Your task to perform on an android device: allow cookies in the chrome app Image 0: 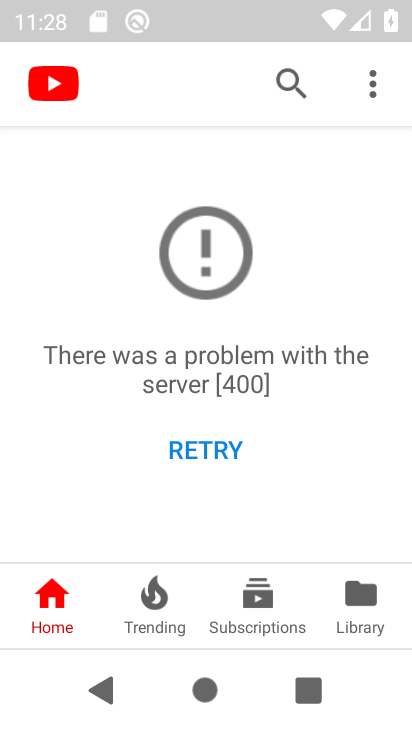
Step 0: press home button
Your task to perform on an android device: allow cookies in the chrome app Image 1: 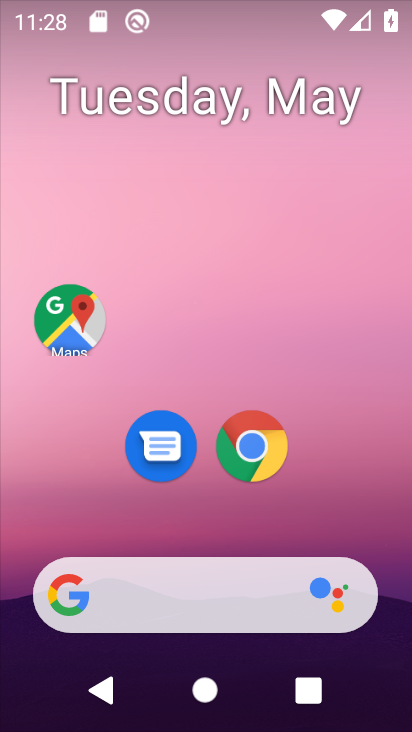
Step 1: drag from (374, 484) to (212, 5)
Your task to perform on an android device: allow cookies in the chrome app Image 2: 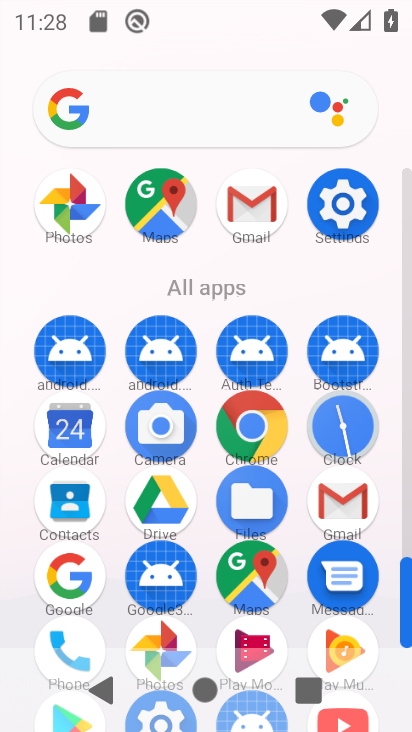
Step 2: click (233, 436)
Your task to perform on an android device: allow cookies in the chrome app Image 3: 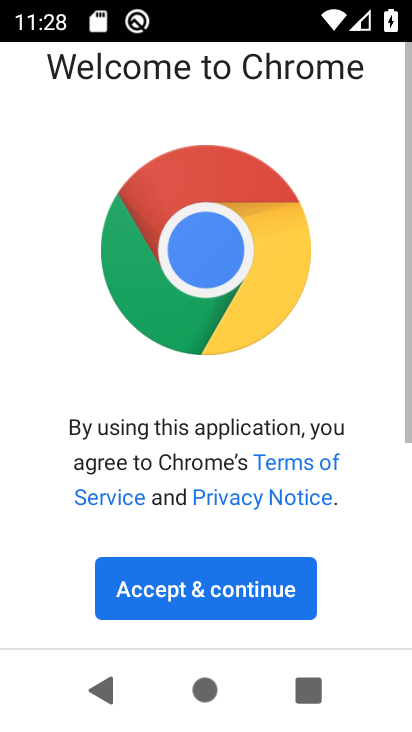
Step 3: click (235, 585)
Your task to perform on an android device: allow cookies in the chrome app Image 4: 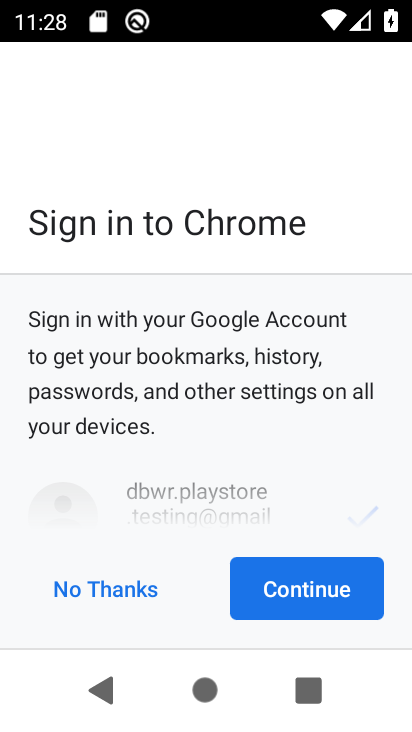
Step 4: click (376, 588)
Your task to perform on an android device: allow cookies in the chrome app Image 5: 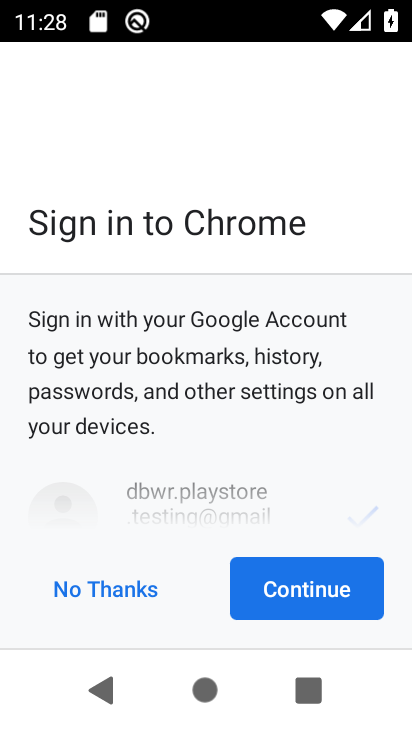
Step 5: click (376, 588)
Your task to perform on an android device: allow cookies in the chrome app Image 6: 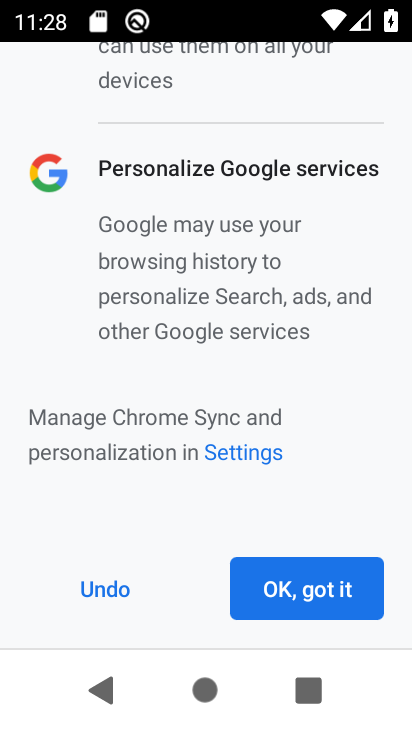
Step 6: click (376, 588)
Your task to perform on an android device: allow cookies in the chrome app Image 7: 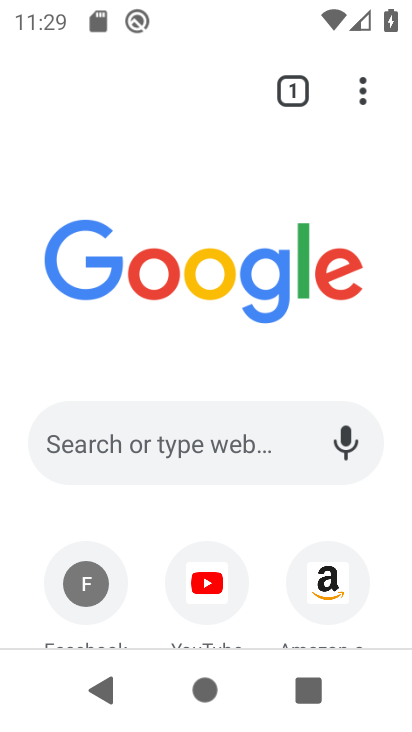
Step 7: drag from (360, 88) to (75, 463)
Your task to perform on an android device: allow cookies in the chrome app Image 8: 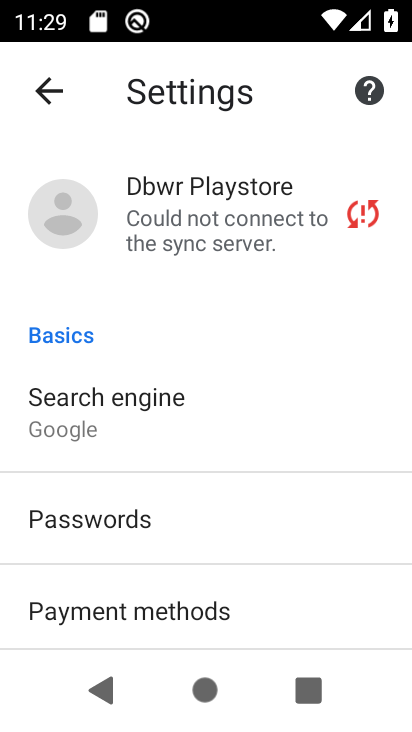
Step 8: drag from (259, 579) to (267, 217)
Your task to perform on an android device: allow cookies in the chrome app Image 9: 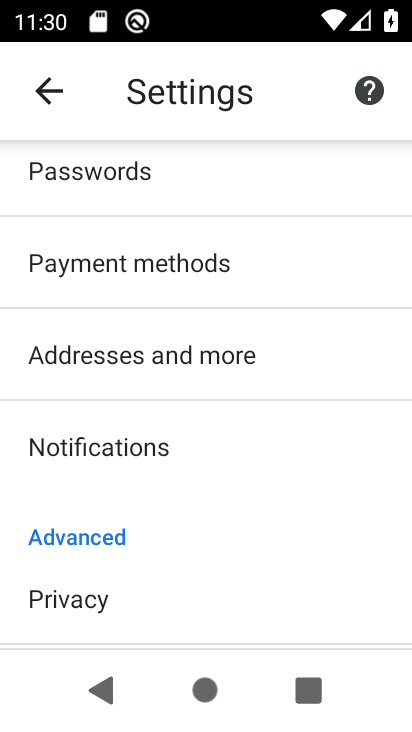
Step 9: drag from (52, 612) to (135, 109)
Your task to perform on an android device: allow cookies in the chrome app Image 10: 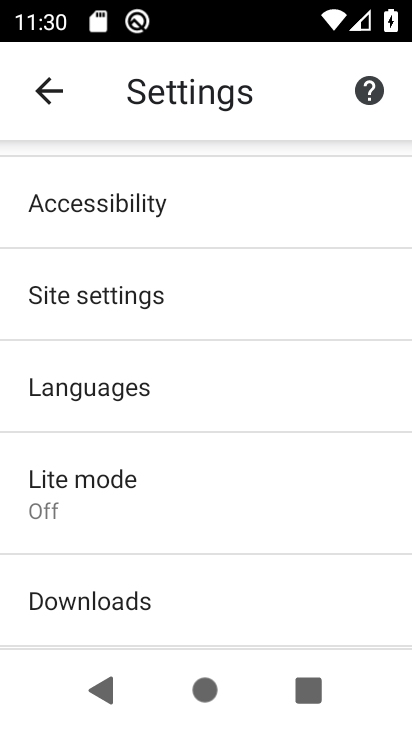
Step 10: click (134, 307)
Your task to perform on an android device: allow cookies in the chrome app Image 11: 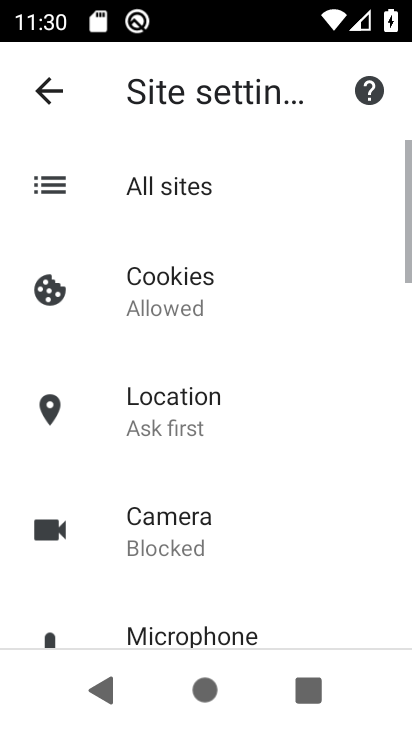
Step 11: click (134, 307)
Your task to perform on an android device: allow cookies in the chrome app Image 12: 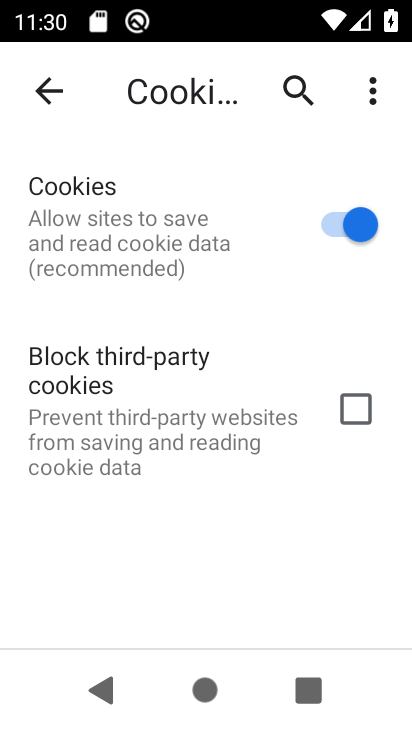
Step 12: task complete